Your task to perform on an android device: Open my contact list Image 0: 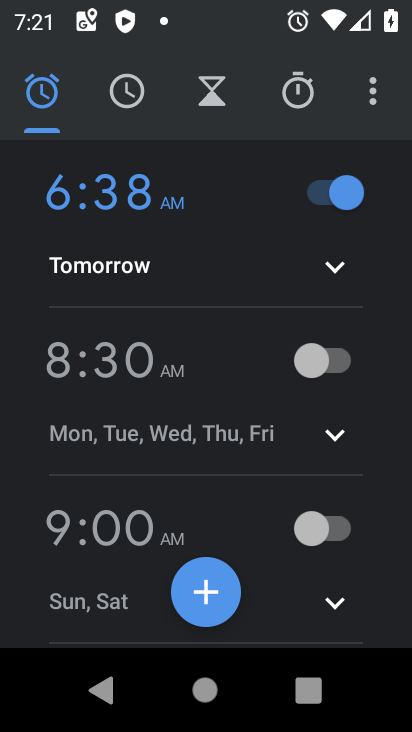
Step 0: press home button
Your task to perform on an android device: Open my contact list Image 1: 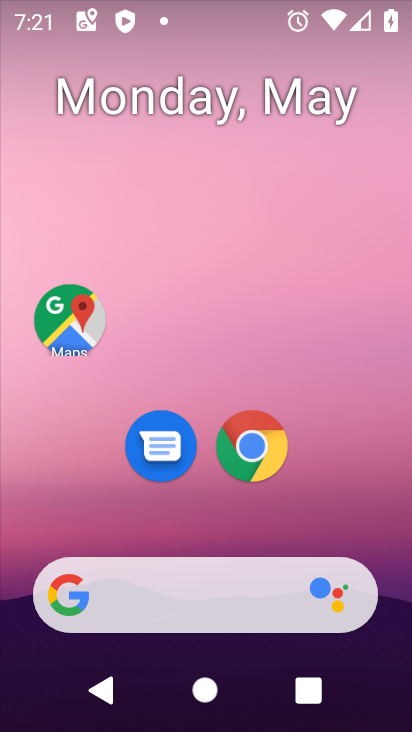
Step 1: drag from (303, 494) to (242, 204)
Your task to perform on an android device: Open my contact list Image 2: 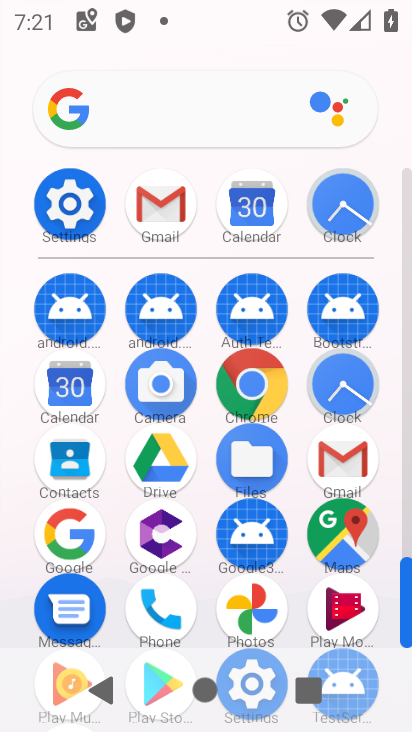
Step 2: click (64, 459)
Your task to perform on an android device: Open my contact list Image 3: 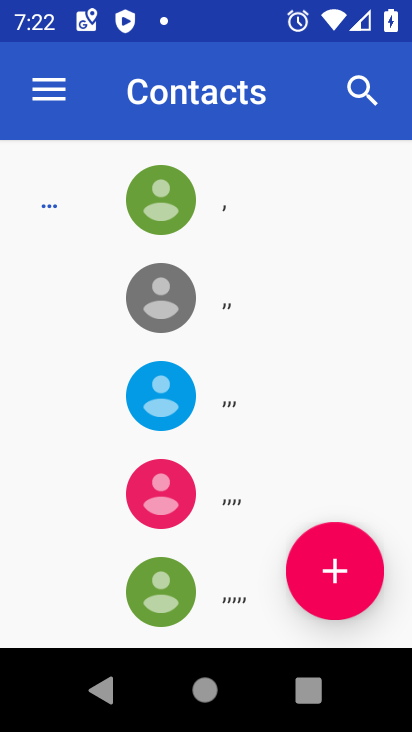
Step 3: task complete